Your task to perform on an android device: install app "Pinterest" Image 0: 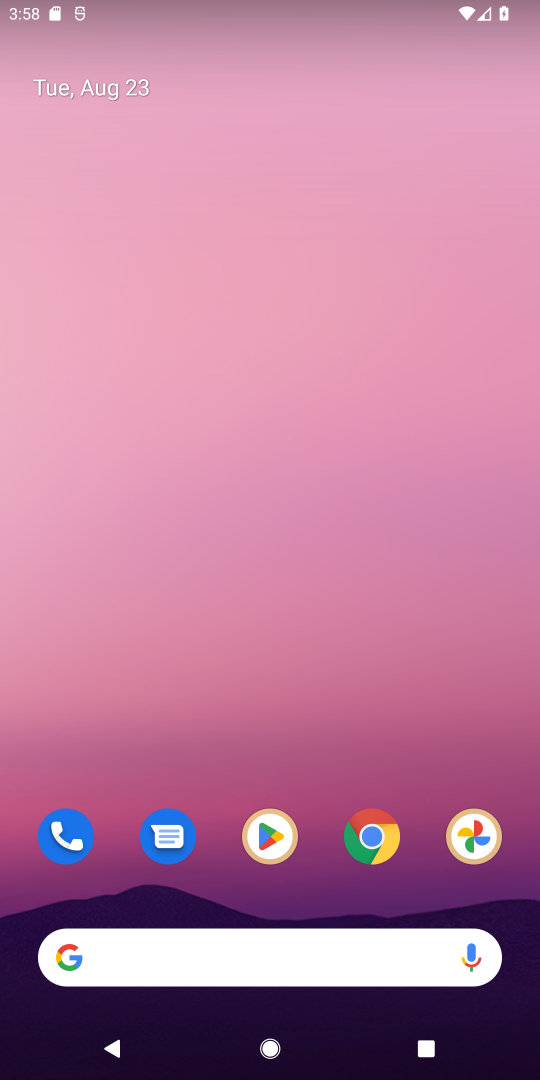
Step 0: click (267, 837)
Your task to perform on an android device: install app "Pinterest" Image 1: 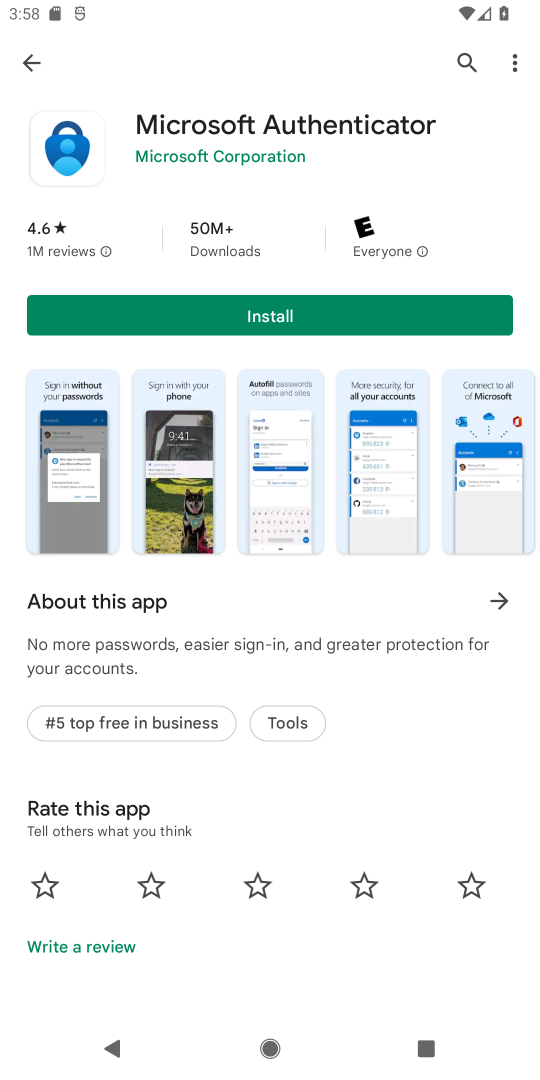
Step 1: click (467, 67)
Your task to perform on an android device: install app "Pinterest" Image 2: 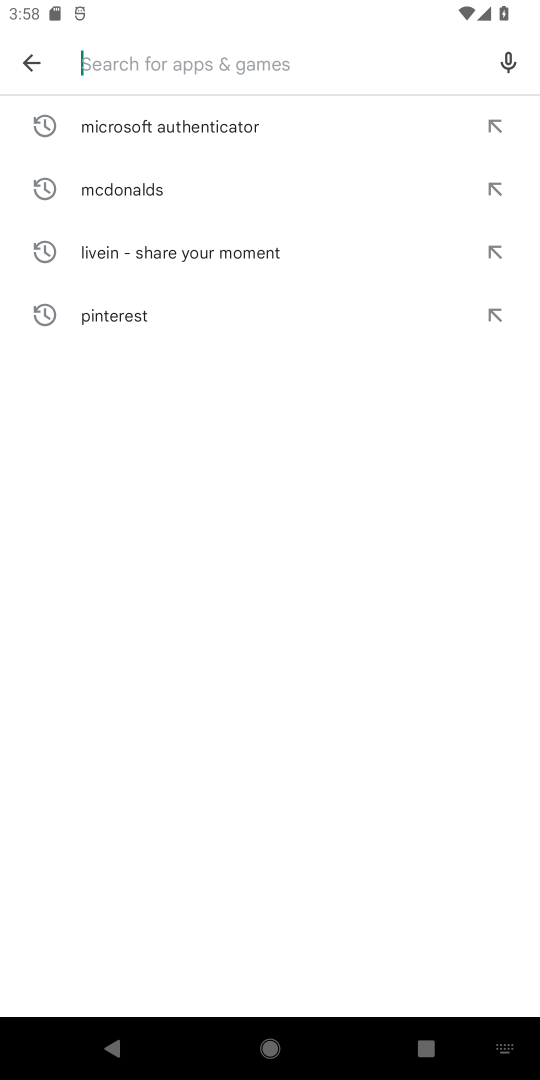
Step 2: type "Pinterest"
Your task to perform on an android device: install app "Pinterest" Image 3: 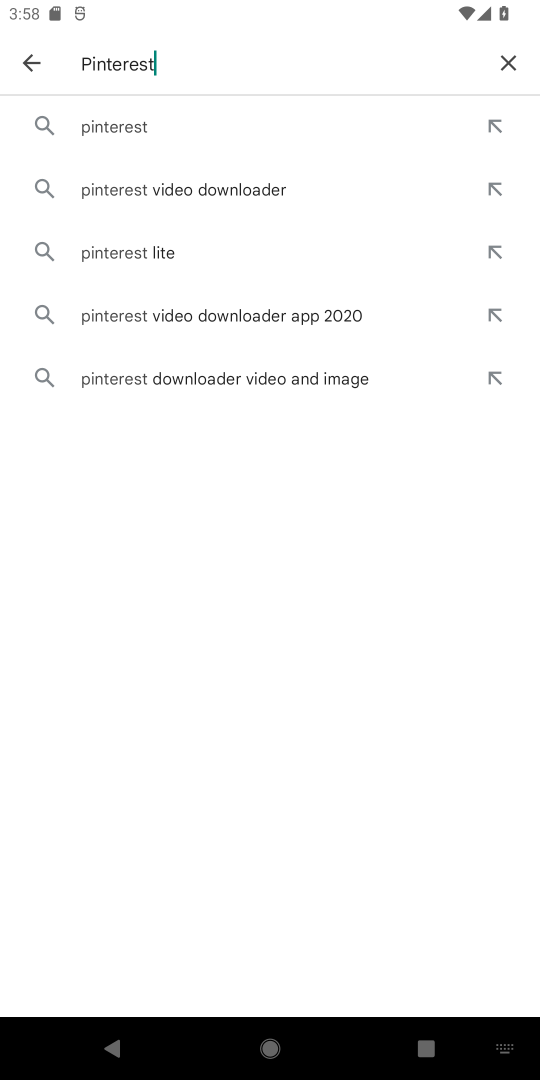
Step 3: click (99, 113)
Your task to perform on an android device: install app "Pinterest" Image 4: 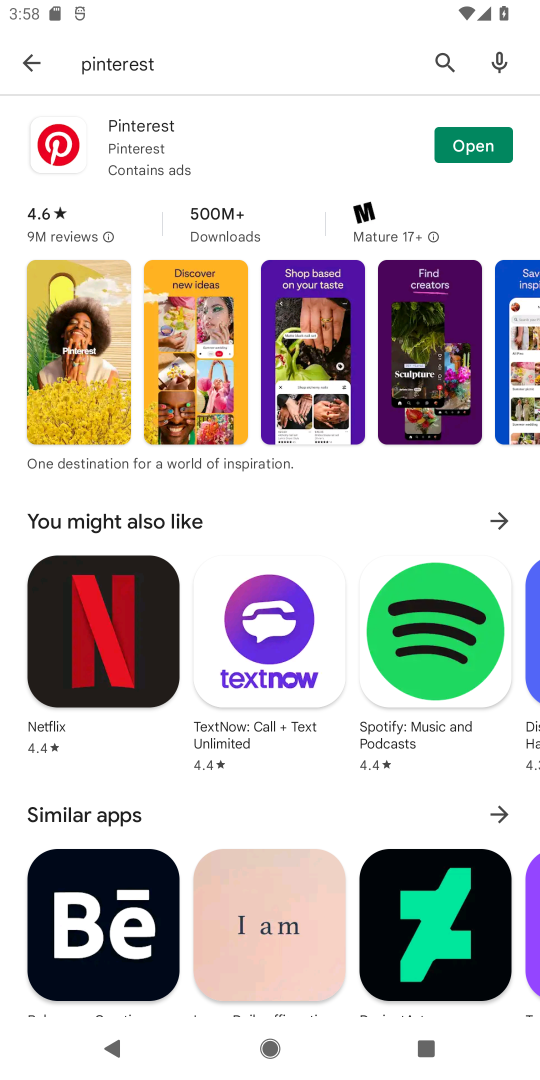
Step 4: task complete